Your task to perform on an android device: Search for Mexican restaurants on Maps Image 0: 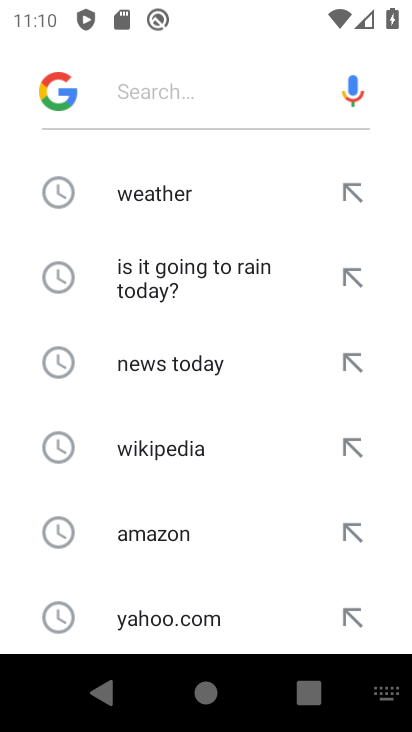
Step 0: press home button
Your task to perform on an android device: Search for Mexican restaurants on Maps Image 1: 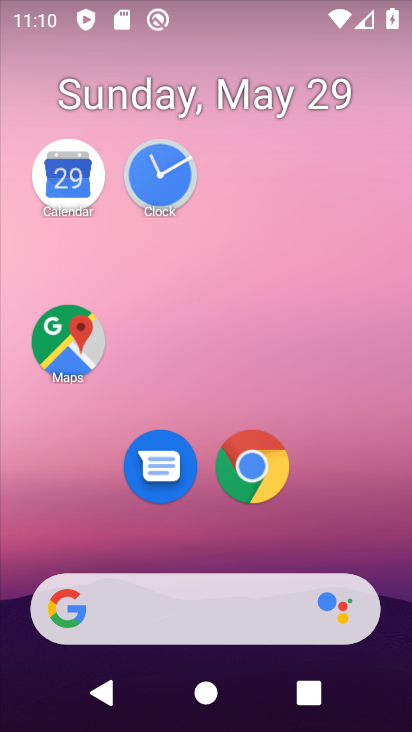
Step 1: click (76, 351)
Your task to perform on an android device: Search for Mexican restaurants on Maps Image 2: 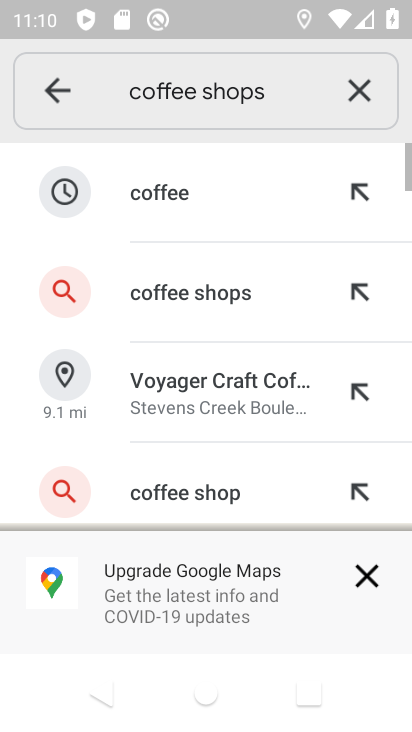
Step 2: click (366, 90)
Your task to perform on an android device: Search for Mexican restaurants on Maps Image 3: 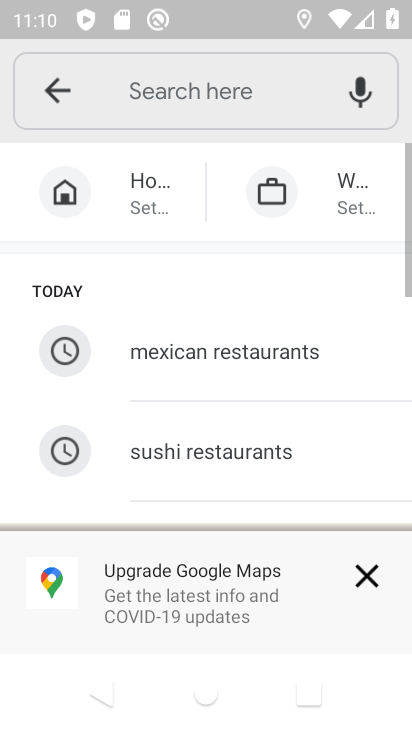
Step 3: click (197, 104)
Your task to perform on an android device: Search for Mexican restaurants on Maps Image 4: 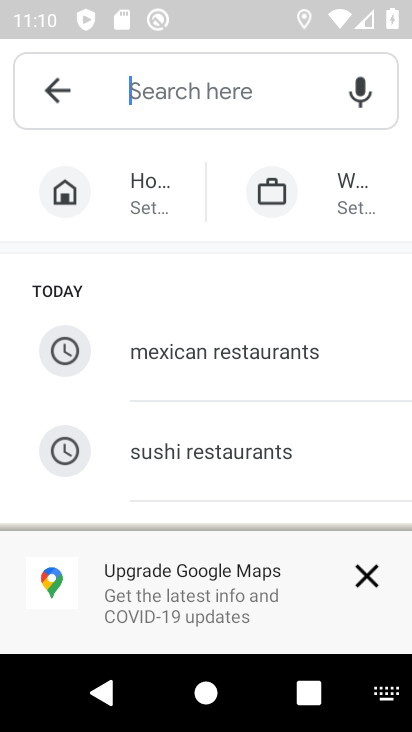
Step 4: click (264, 342)
Your task to perform on an android device: Search for Mexican restaurants on Maps Image 5: 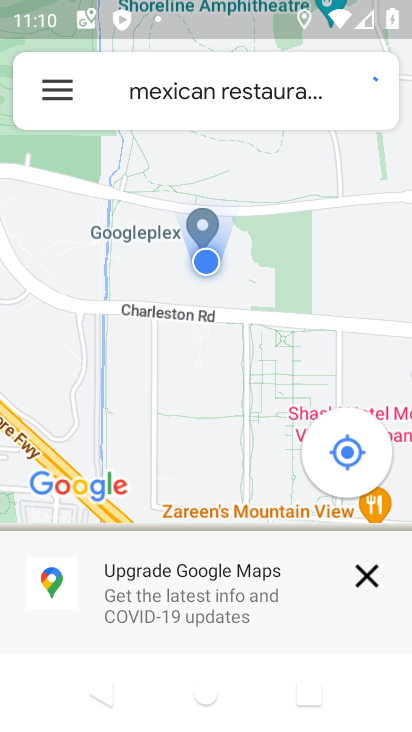
Step 5: task complete